Your task to perform on an android device: change keyboard looks Image 0: 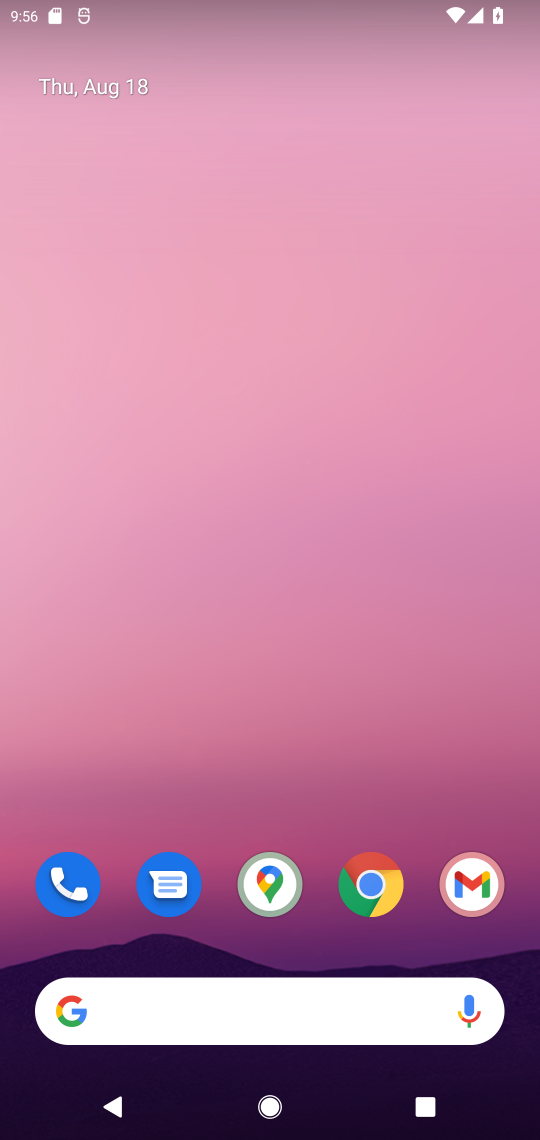
Step 0: click (278, 166)
Your task to perform on an android device: change keyboard looks Image 1: 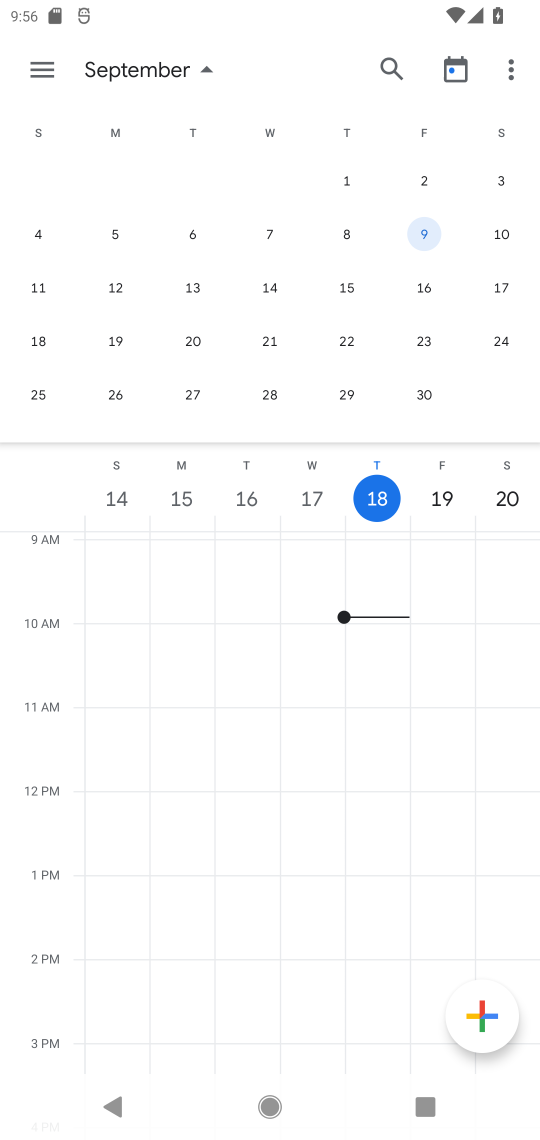
Step 1: press home button
Your task to perform on an android device: change keyboard looks Image 2: 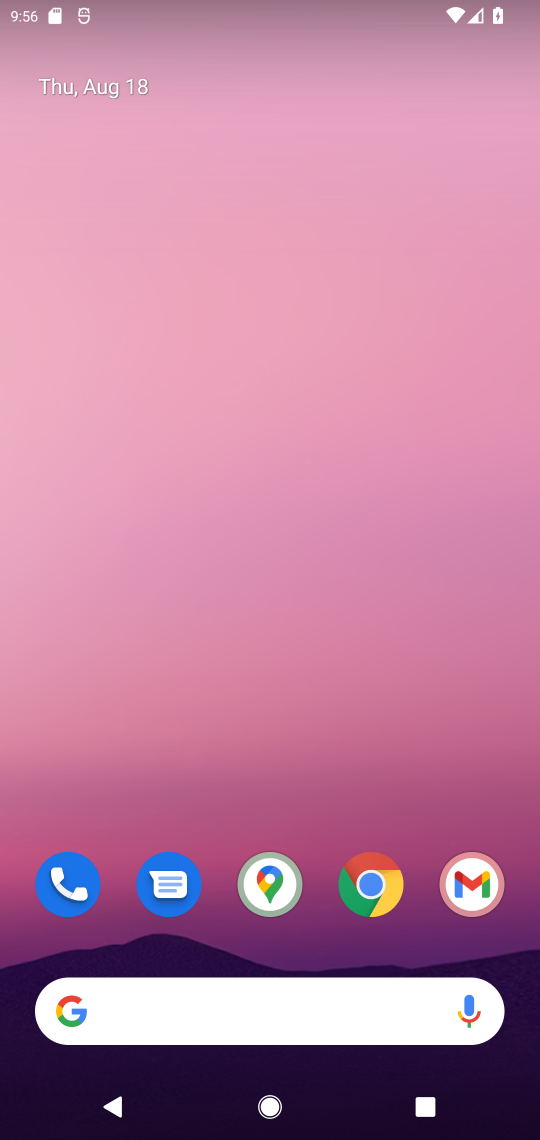
Step 2: drag from (199, 963) to (476, 14)
Your task to perform on an android device: change keyboard looks Image 3: 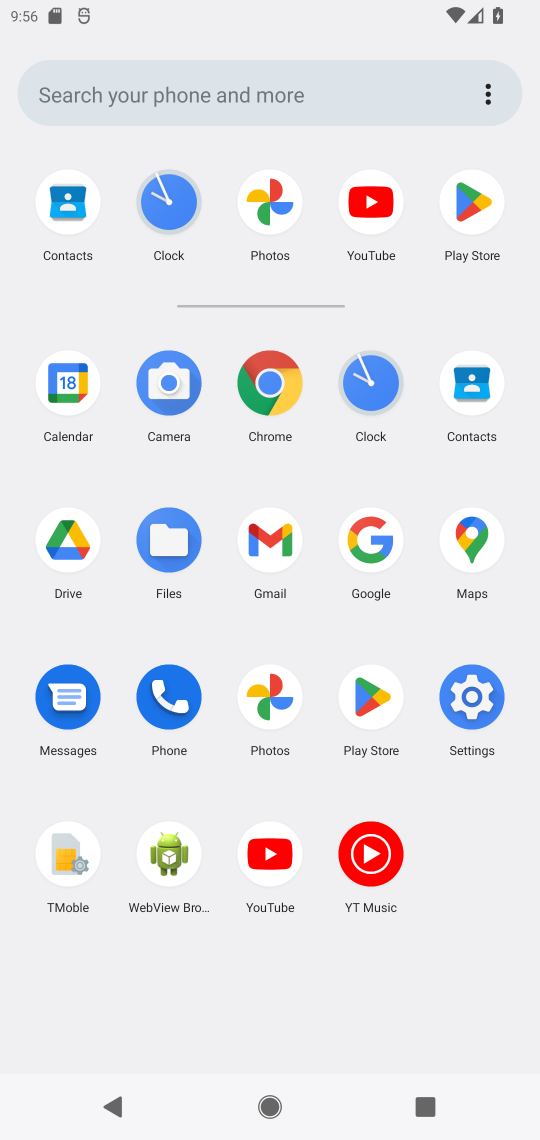
Step 3: click (495, 702)
Your task to perform on an android device: change keyboard looks Image 4: 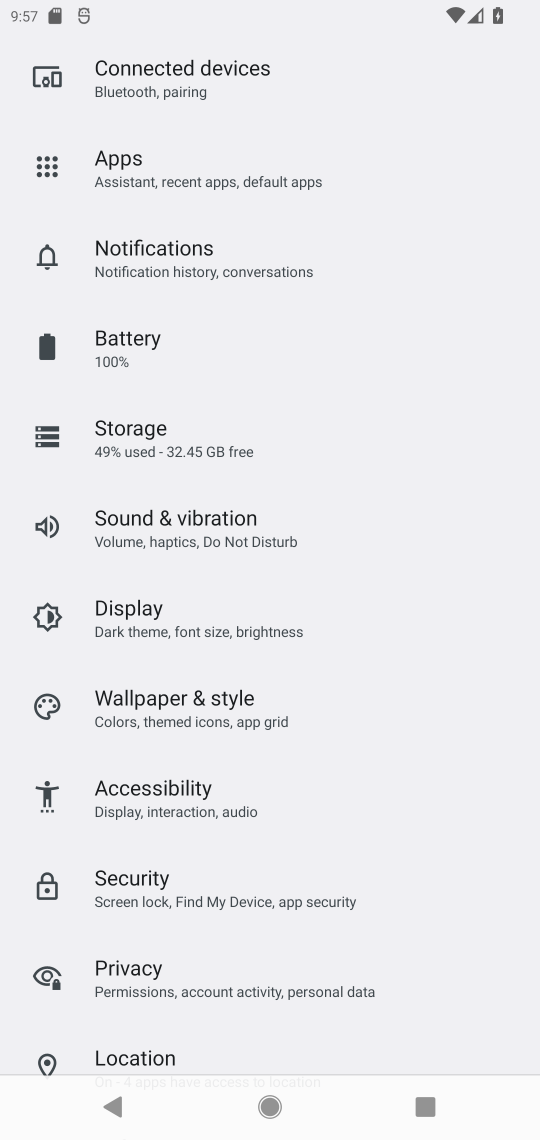
Step 4: drag from (206, 1030) to (254, 628)
Your task to perform on an android device: change keyboard looks Image 5: 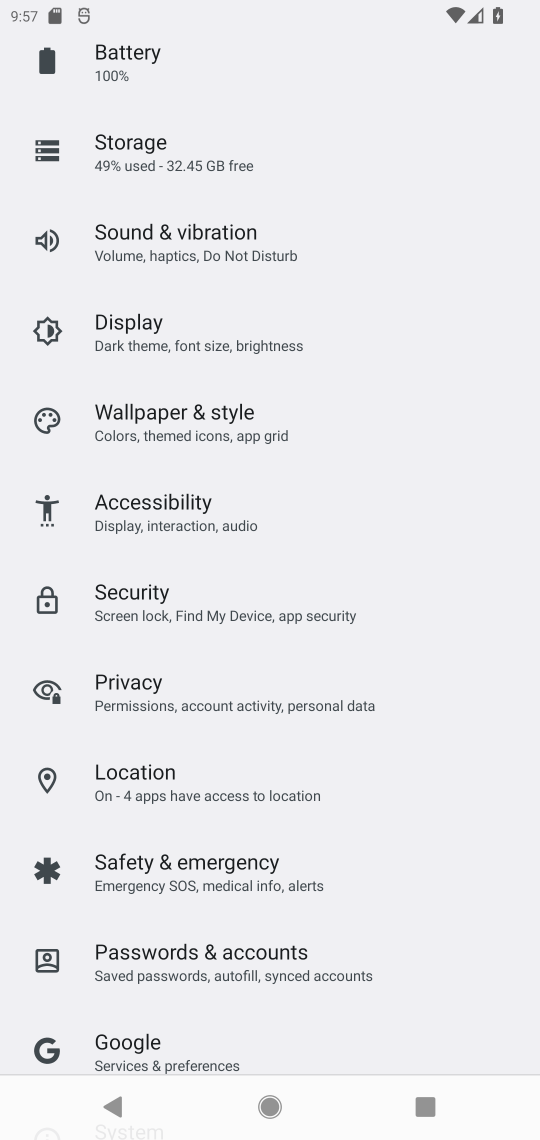
Step 5: drag from (254, 628) to (225, 263)
Your task to perform on an android device: change keyboard looks Image 6: 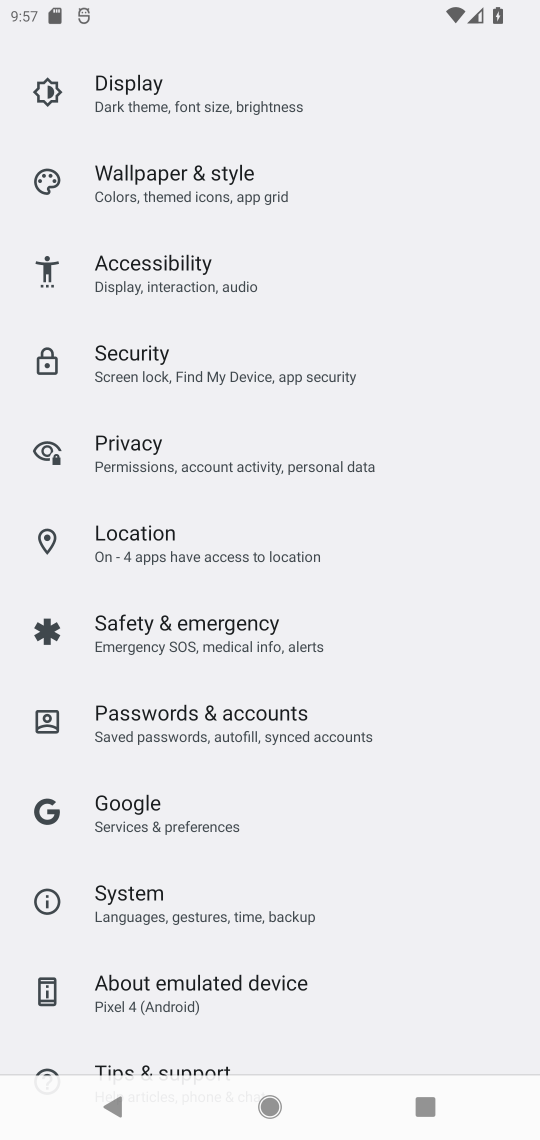
Step 6: drag from (136, 1000) to (175, 130)
Your task to perform on an android device: change keyboard looks Image 7: 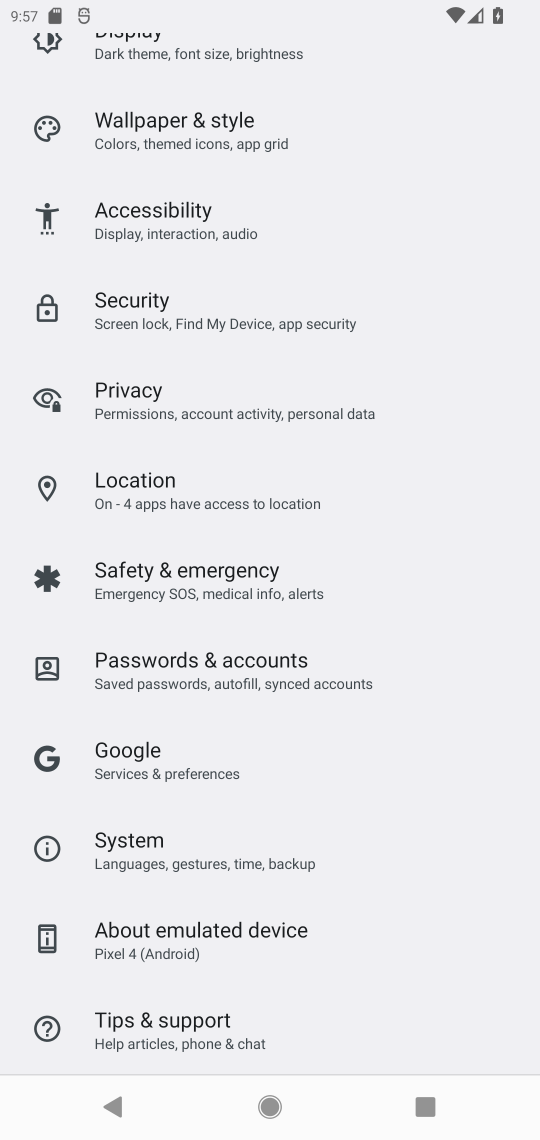
Step 7: click (235, 849)
Your task to perform on an android device: change keyboard looks Image 8: 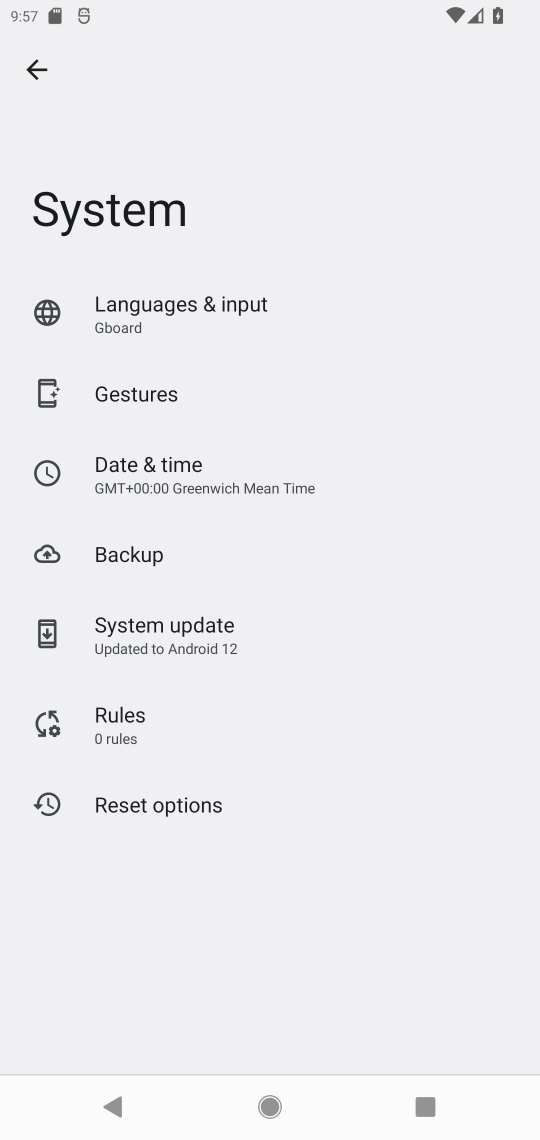
Step 8: click (308, 294)
Your task to perform on an android device: change keyboard looks Image 9: 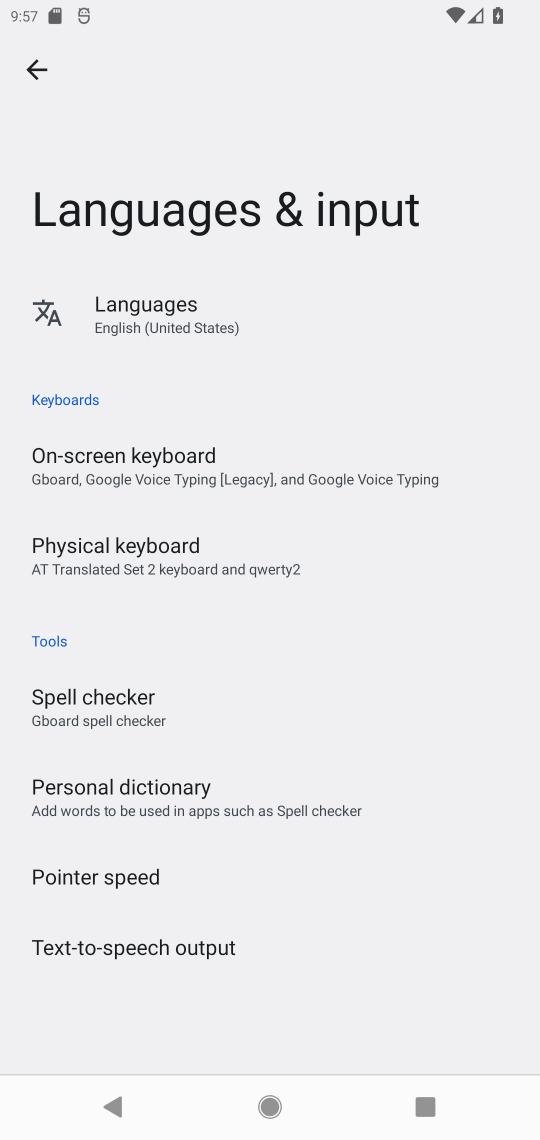
Step 9: click (255, 485)
Your task to perform on an android device: change keyboard looks Image 10: 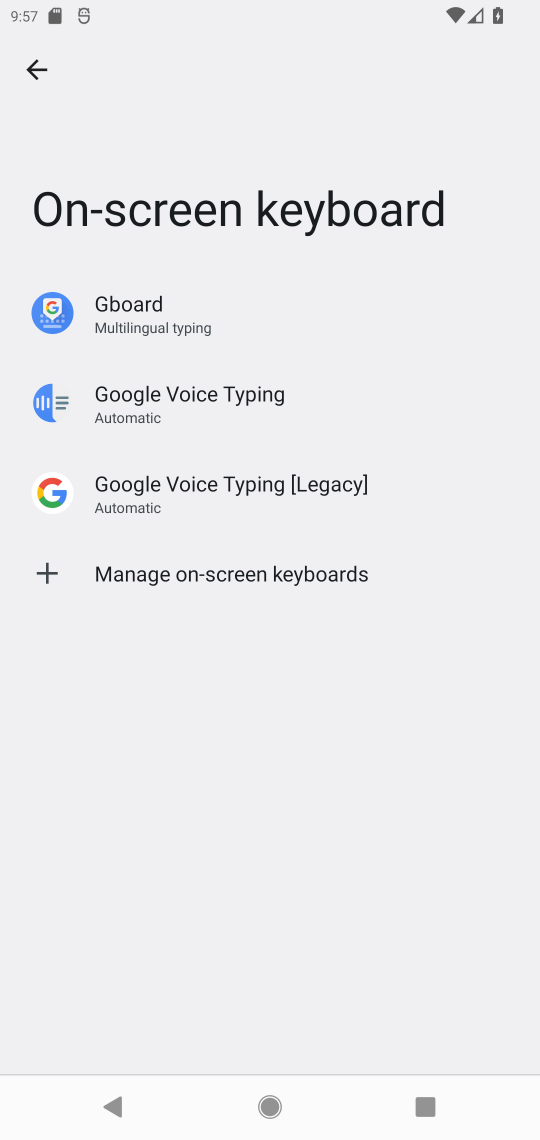
Step 10: click (185, 336)
Your task to perform on an android device: change keyboard looks Image 11: 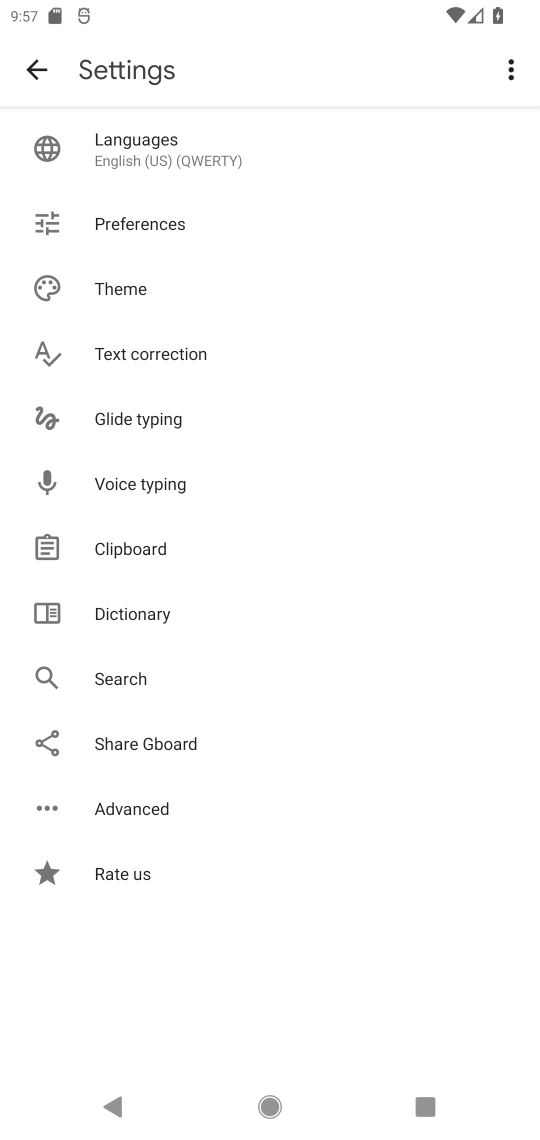
Step 11: click (155, 311)
Your task to perform on an android device: change keyboard looks Image 12: 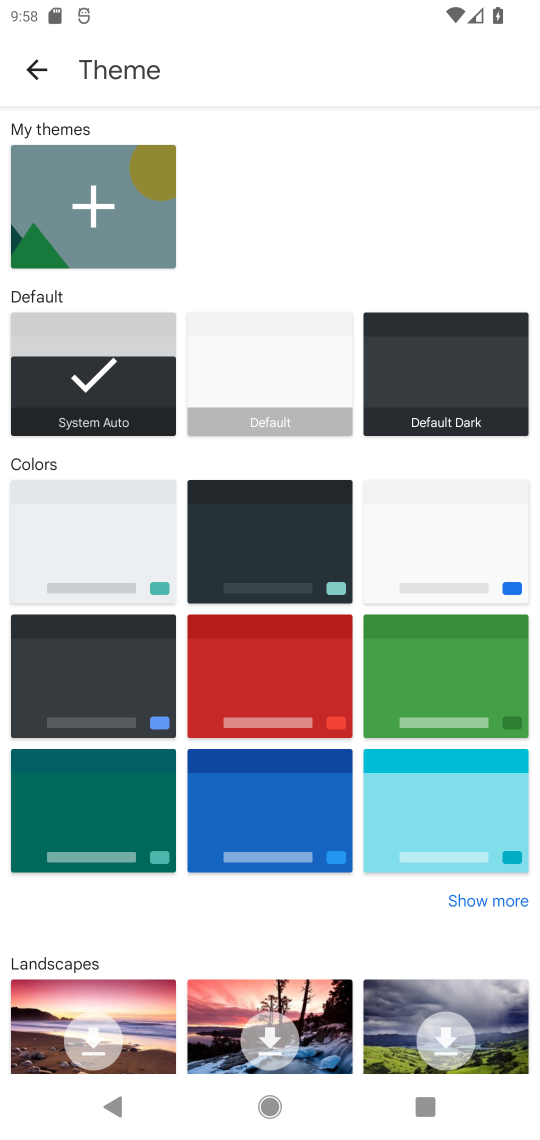
Step 12: click (277, 805)
Your task to perform on an android device: change keyboard looks Image 13: 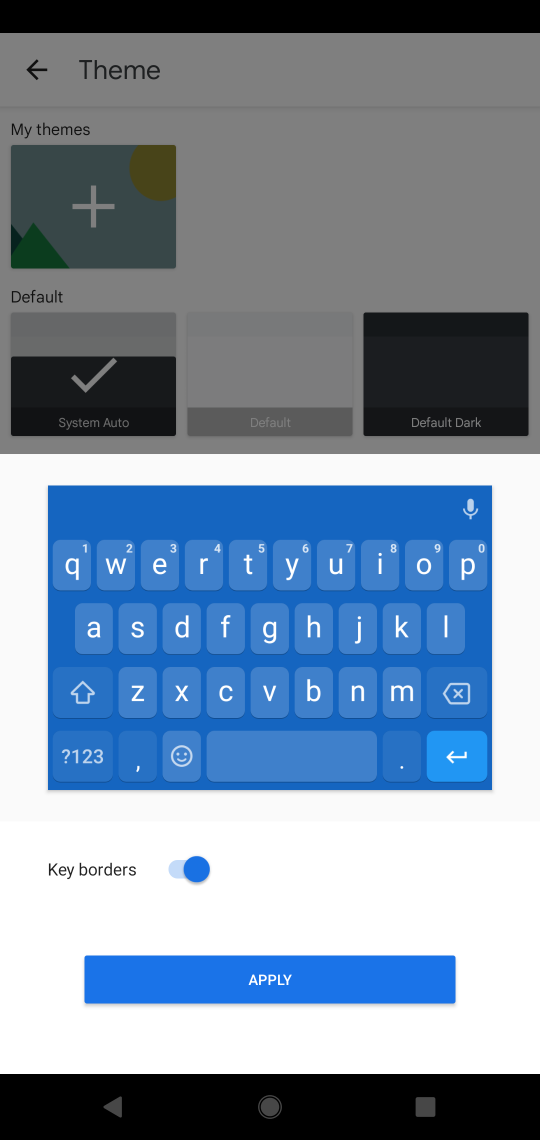
Step 13: click (358, 966)
Your task to perform on an android device: change keyboard looks Image 14: 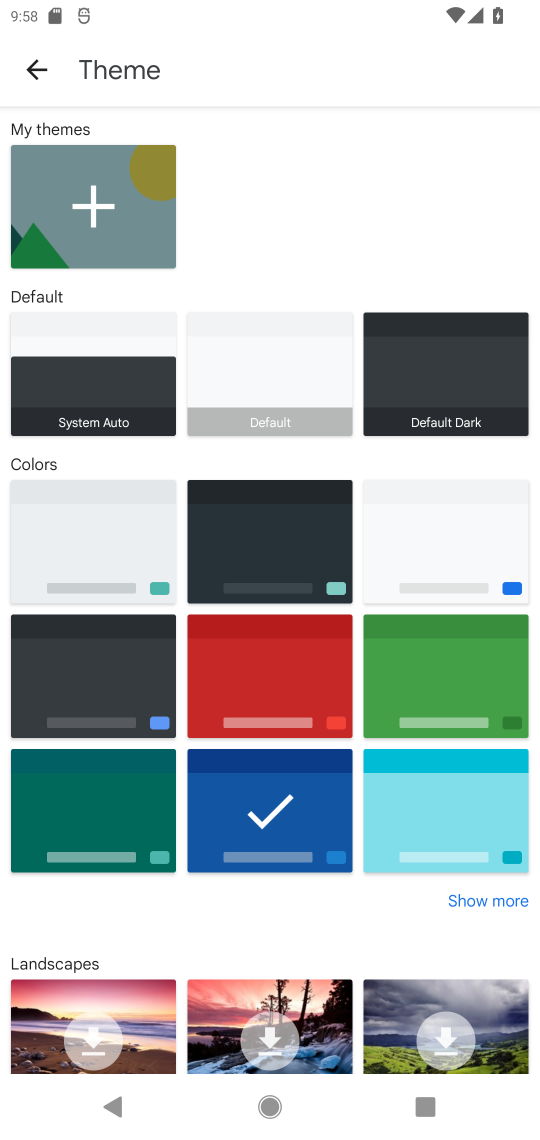
Step 14: task complete